Your task to perform on an android device: find photos in the google photos app Image 0: 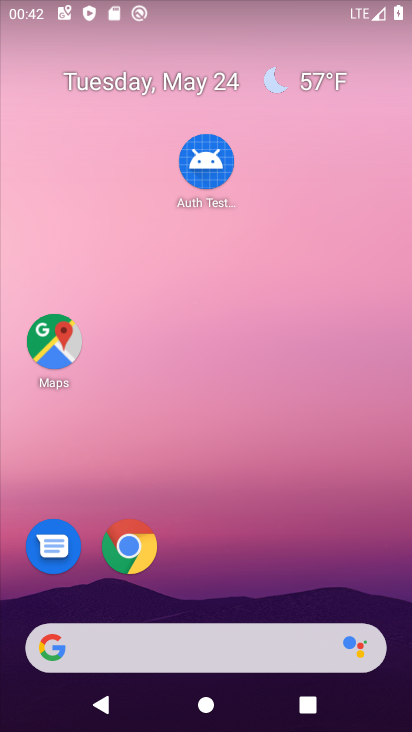
Step 0: drag from (169, 588) to (358, 2)
Your task to perform on an android device: find photos in the google photos app Image 1: 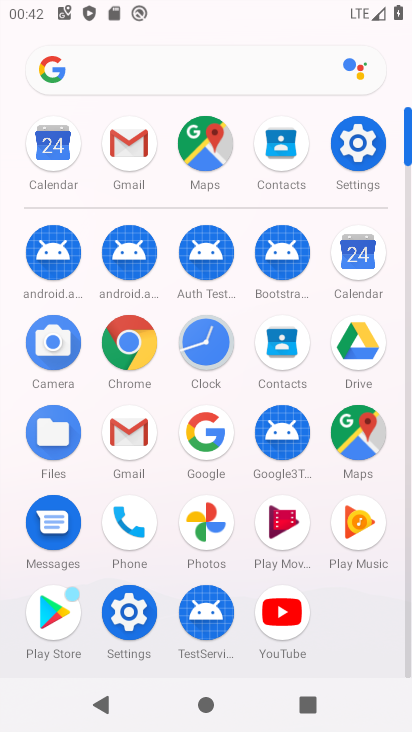
Step 1: click (190, 532)
Your task to perform on an android device: find photos in the google photos app Image 2: 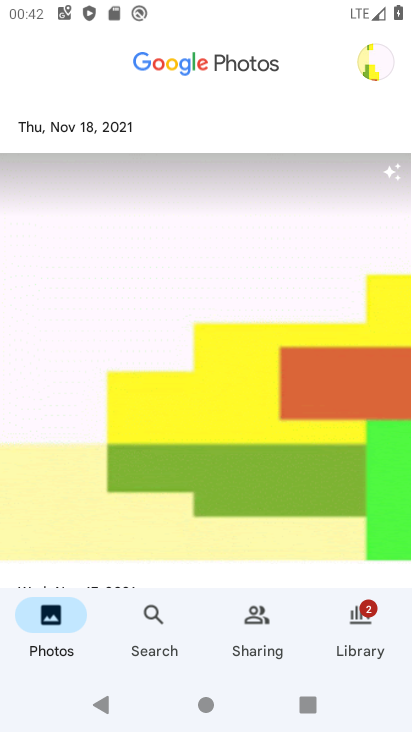
Step 2: drag from (215, 559) to (200, 187)
Your task to perform on an android device: find photos in the google photos app Image 3: 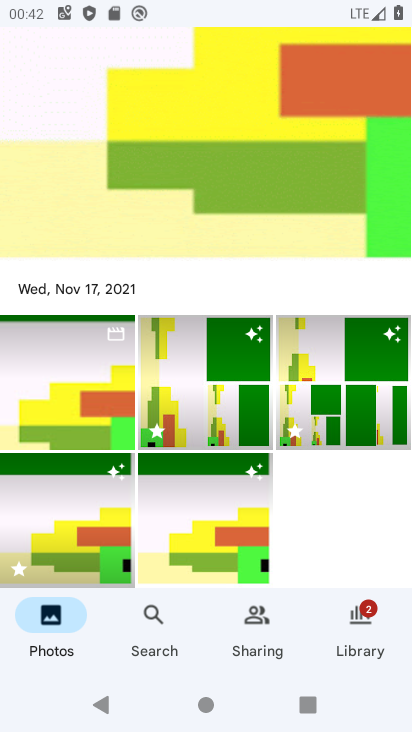
Step 3: drag from (126, 120) to (261, 696)
Your task to perform on an android device: find photos in the google photos app Image 4: 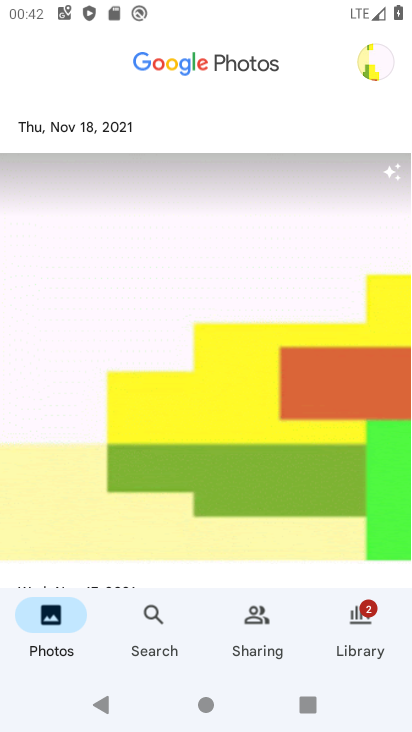
Step 4: click (129, 609)
Your task to perform on an android device: find photos in the google photos app Image 5: 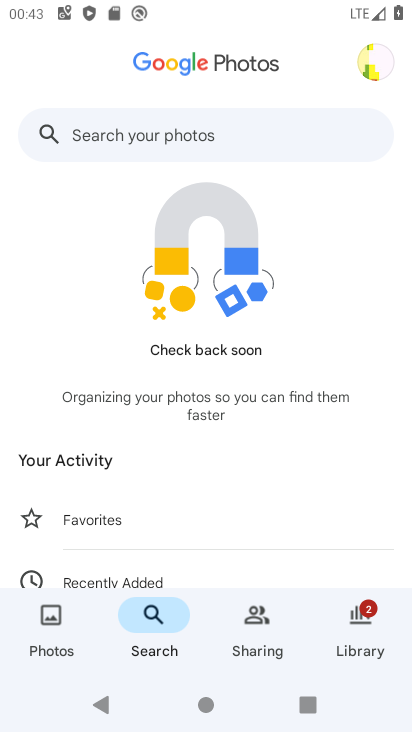
Step 5: drag from (199, 557) to (325, 141)
Your task to perform on an android device: find photos in the google photos app Image 6: 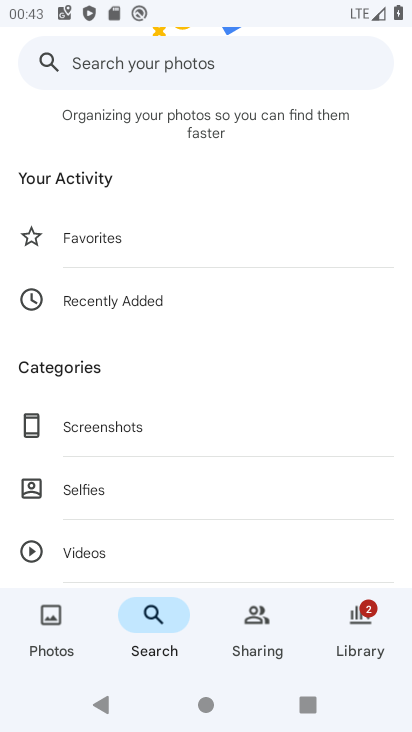
Step 6: click (166, 620)
Your task to perform on an android device: find photos in the google photos app Image 7: 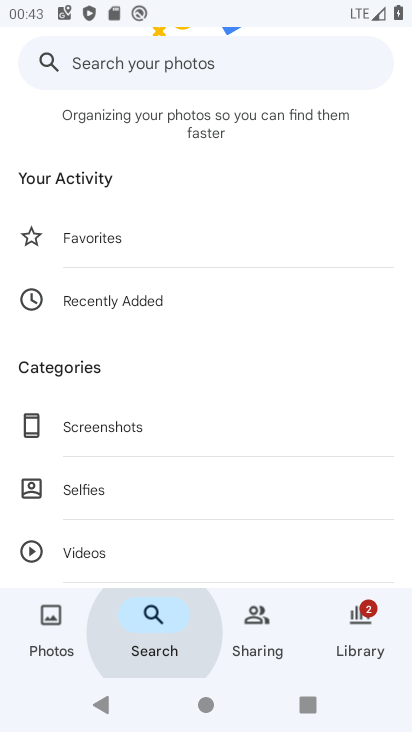
Step 7: click (28, 607)
Your task to perform on an android device: find photos in the google photos app Image 8: 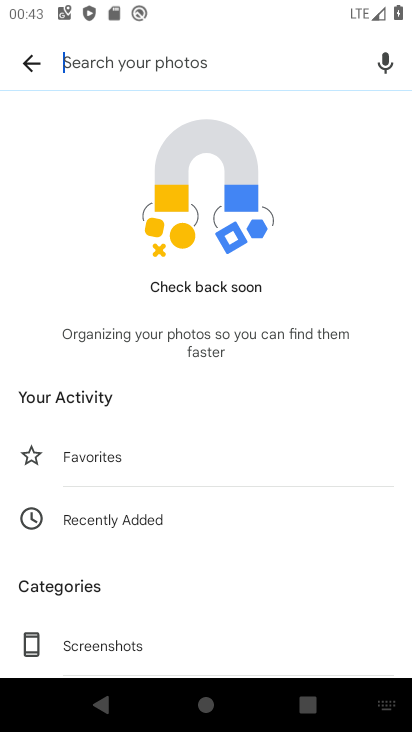
Step 8: click (14, 73)
Your task to perform on an android device: find photos in the google photos app Image 9: 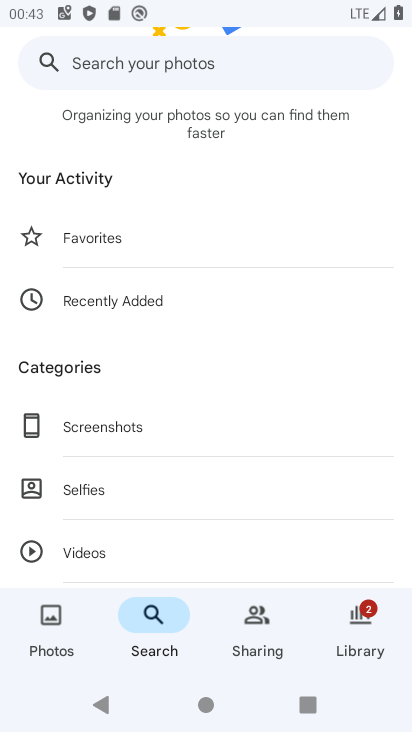
Step 9: drag from (188, 504) to (234, 165)
Your task to perform on an android device: find photos in the google photos app Image 10: 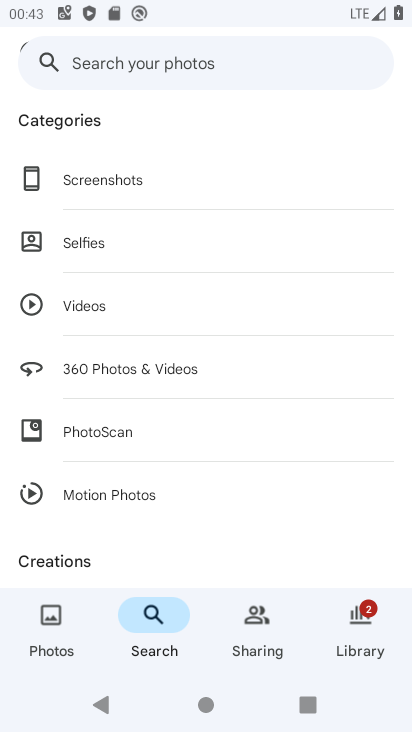
Step 10: drag from (218, 351) to (248, 714)
Your task to perform on an android device: find photos in the google photos app Image 11: 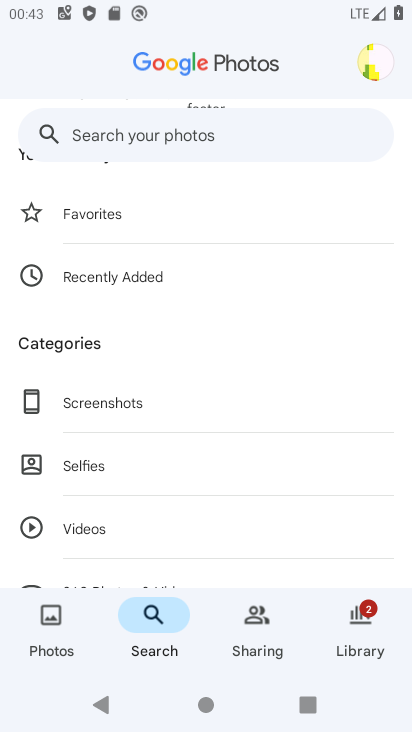
Step 11: drag from (153, 305) to (299, 689)
Your task to perform on an android device: find photos in the google photos app Image 12: 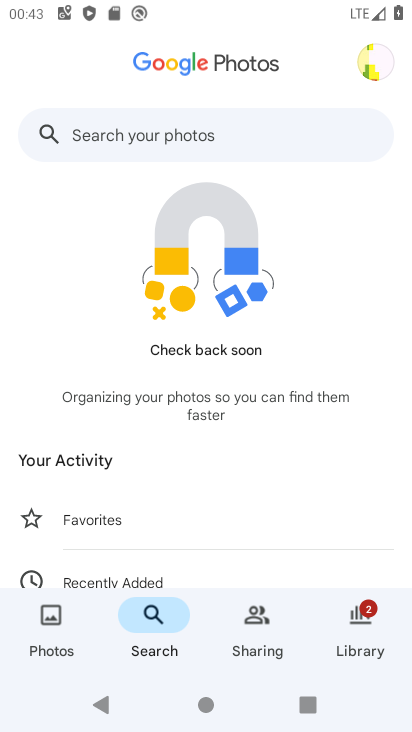
Step 12: click (54, 621)
Your task to perform on an android device: find photos in the google photos app Image 13: 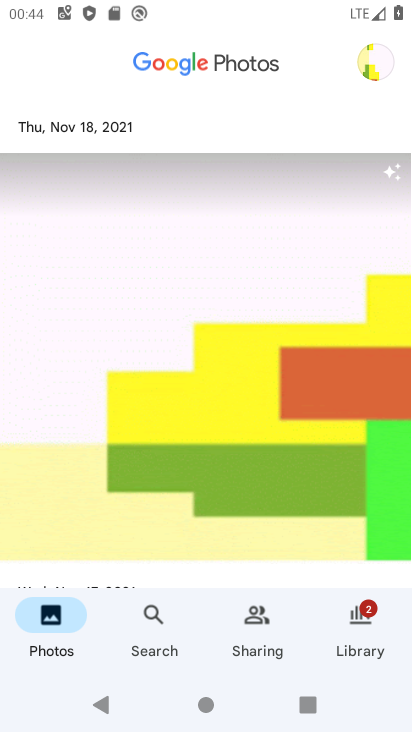
Step 13: task complete